Your task to perform on an android device: check out phone information Image 0: 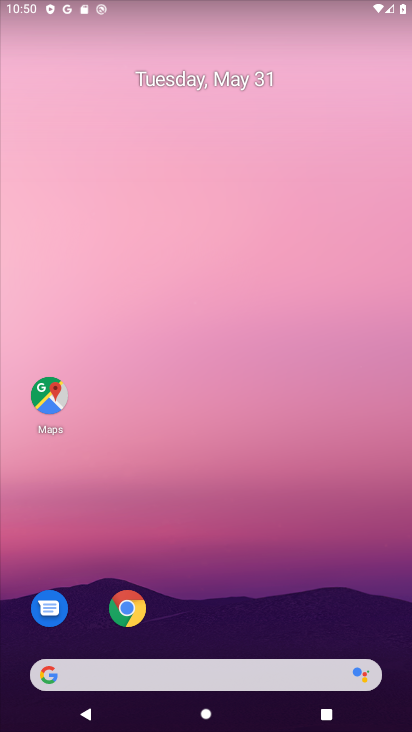
Step 0: drag from (313, 600) to (334, 102)
Your task to perform on an android device: check out phone information Image 1: 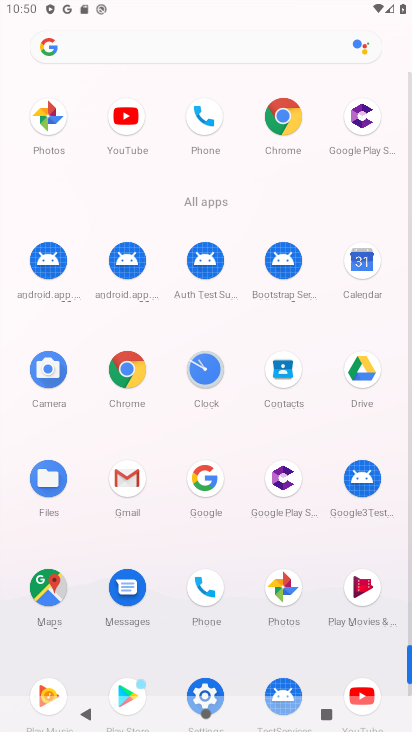
Step 1: click (211, 111)
Your task to perform on an android device: check out phone information Image 2: 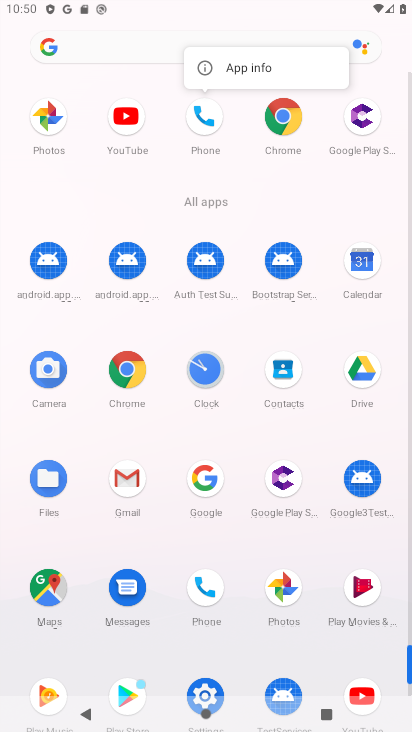
Step 2: click (277, 56)
Your task to perform on an android device: check out phone information Image 3: 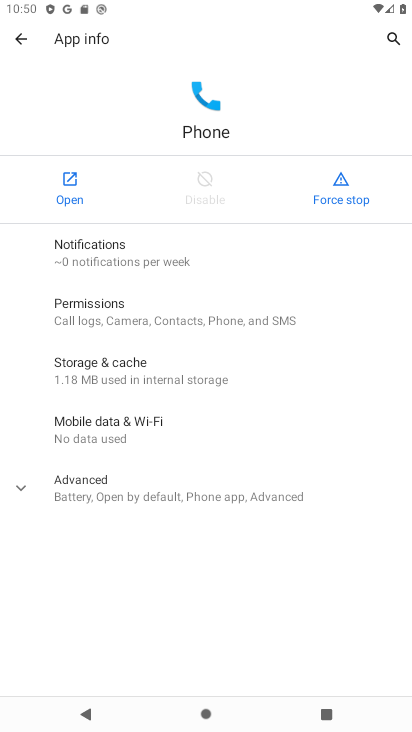
Step 3: click (154, 264)
Your task to perform on an android device: check out phone information Image 4: 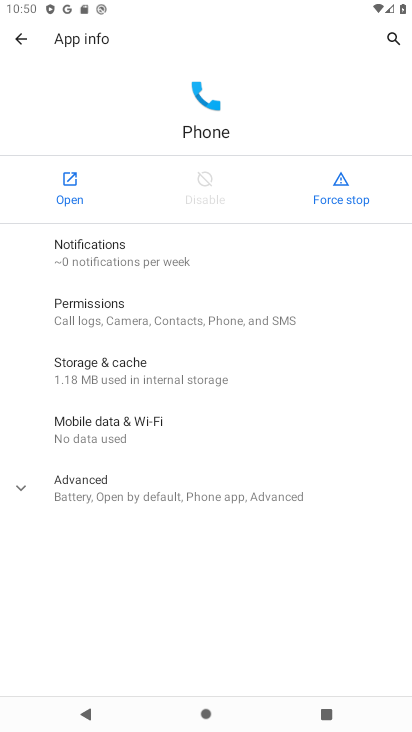
Step 4: task complete